Your task to perform on an android device: manage bookmarks in the chrome app Image 0: 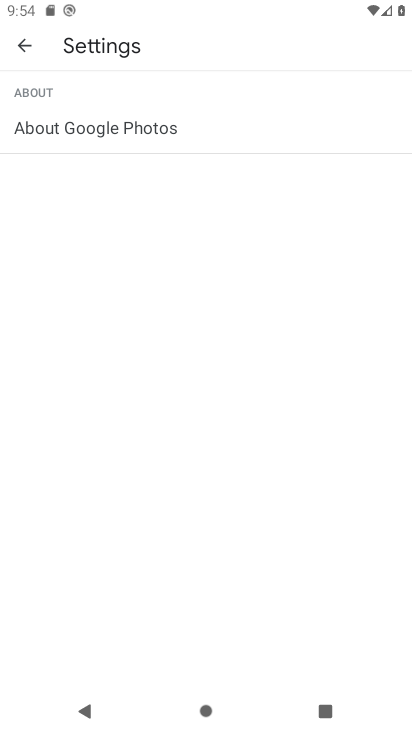
Step 0: press home button
Your task to perform on an android device: manage bookmarks in the chrome app Image 1: 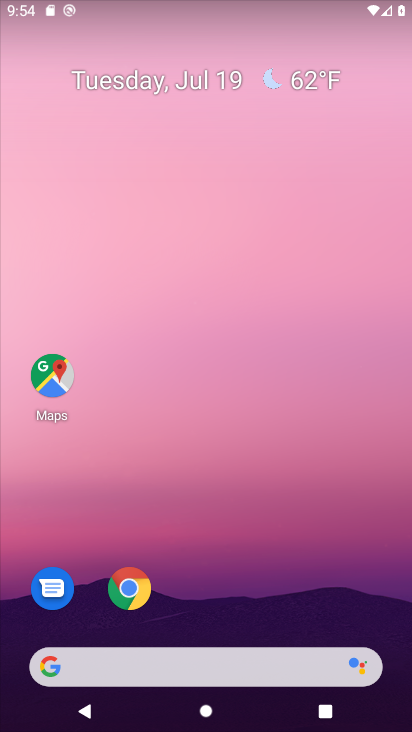
Step 1: click (124, 590)
Your task to perform on an android device: manage bookmarks in the chrome app Image 2: 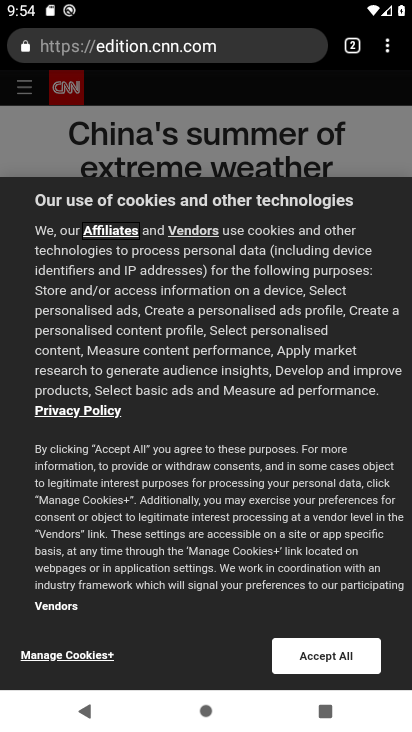
Step 2: click (384, 50)
Your task to perform on an android device: manage bookmarks in the chrome app Image 3: 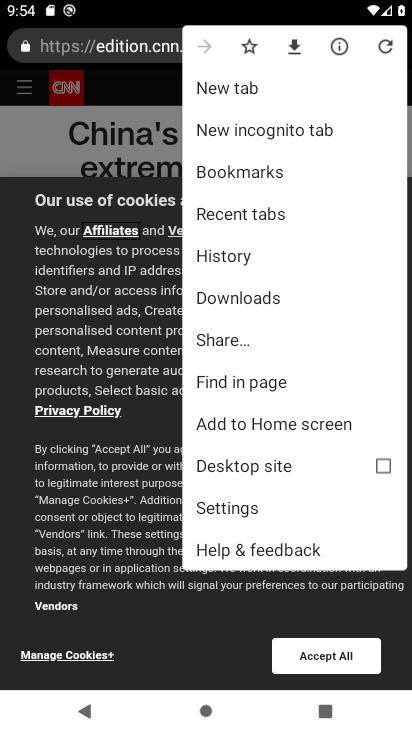
Step 3: click (246, 176)
Your task to perform on an android device: manage bookmarks in the chrome app Image 4: 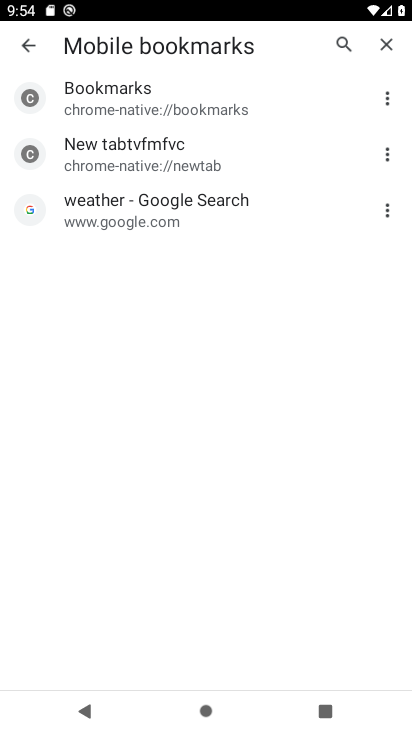
Step 4: click (385, 100)
Your task to perform on an android device: manage bookmarks in the chrome app Image 5: 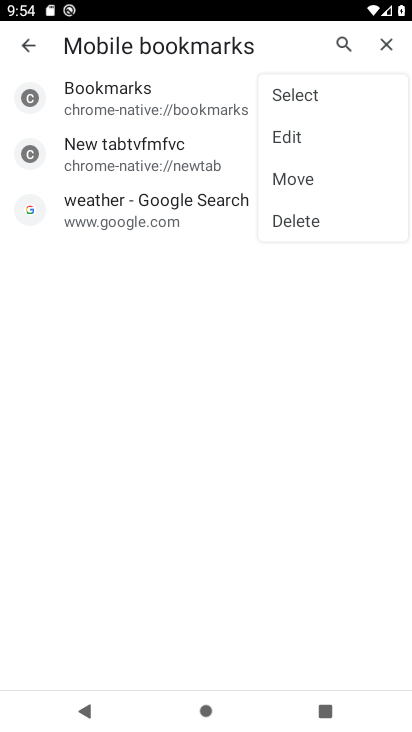
Step 5: click (266, 303)
Your task to perform on an android device: manage bookmarks in the chrome app Image 6: 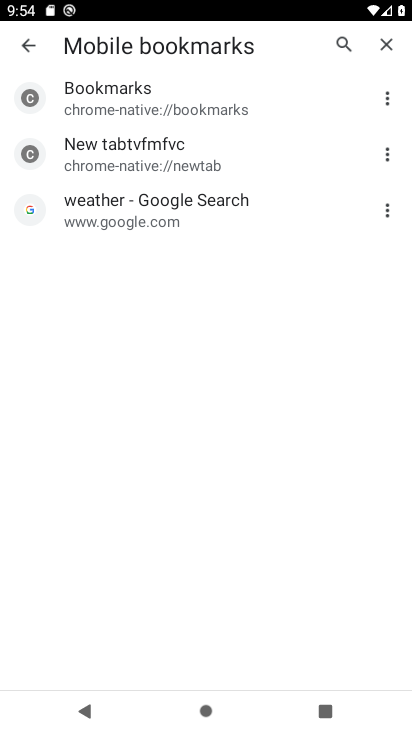
Step 6: click (391, 161)
Your task to perform on an android device: manage bookmarks in the chrome app Image 7: 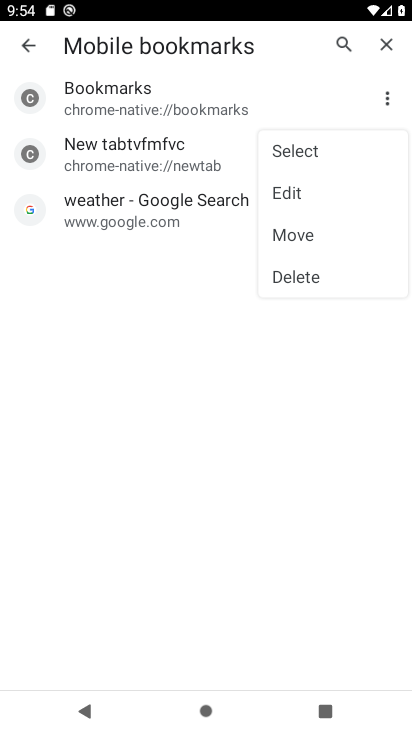
Step 7: click (285, 275)
Your task to perform on an android device: manage bookmarks in the chrome app Image 8: 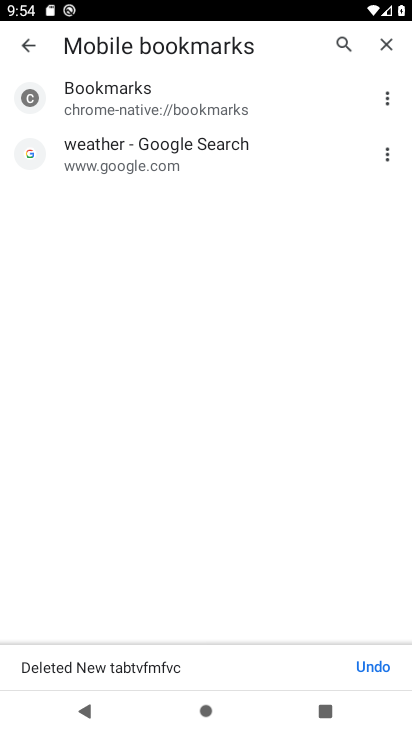
Step 8: task complete